Your task to perform on an android device: toggle data saver in the chrome app Image 0: 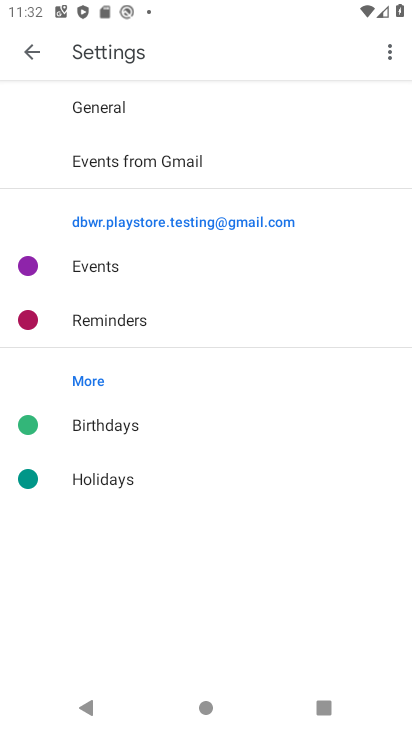
Step 0: press home button
Your task to perform on an android device: toggle data saver in the chrome app Image 1: 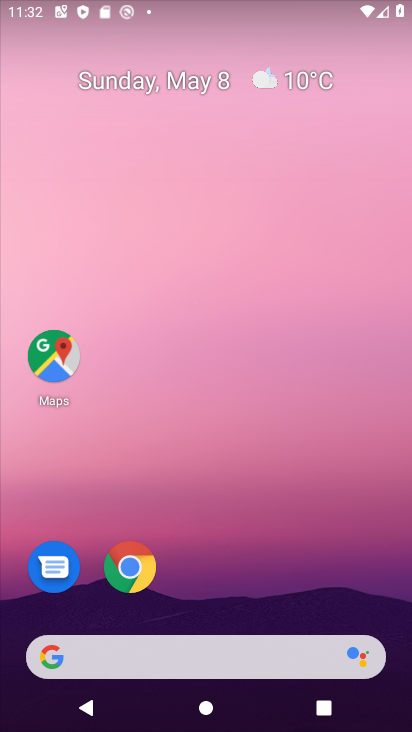
Step 1: click (124, 577)
Your task to perform on an android device: toggle data saver in the chrome app Image 2: 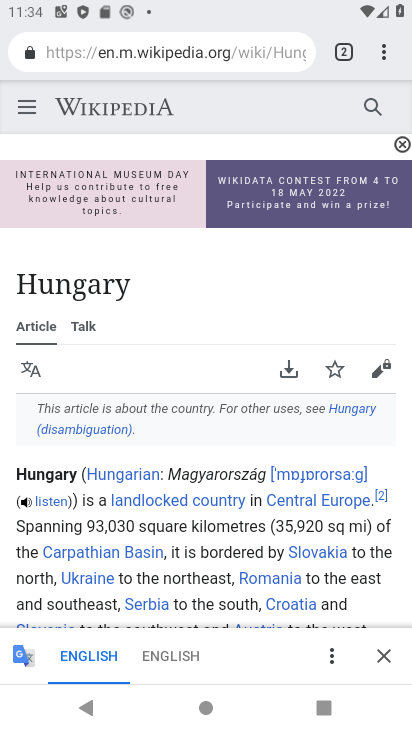
Step 2: click (396, 51)
Your task to perform on an android device: toggle data saver in the chrome app Image 3: 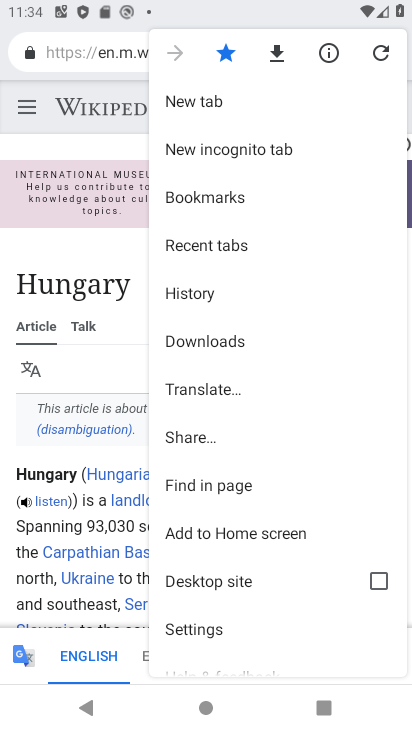
Step 3: drag from (362, 500) to (363, 107)
Your task to perform on an android device: toggle data saver in the chrome app Image 4: 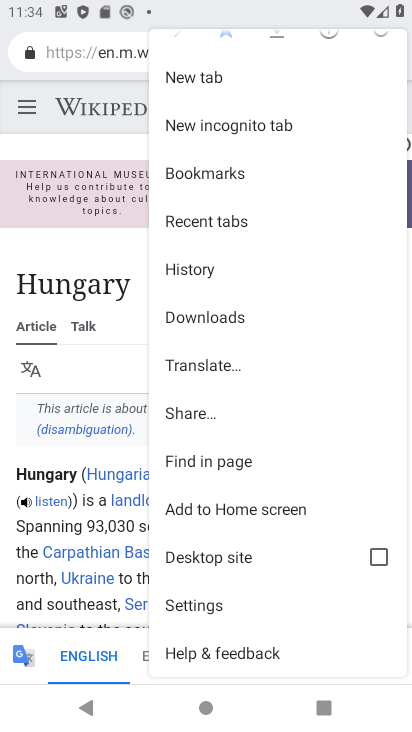
Step 4: click (255, 600)
Your task to perform on an android device: toggle data saver in the chrome app Image 5: 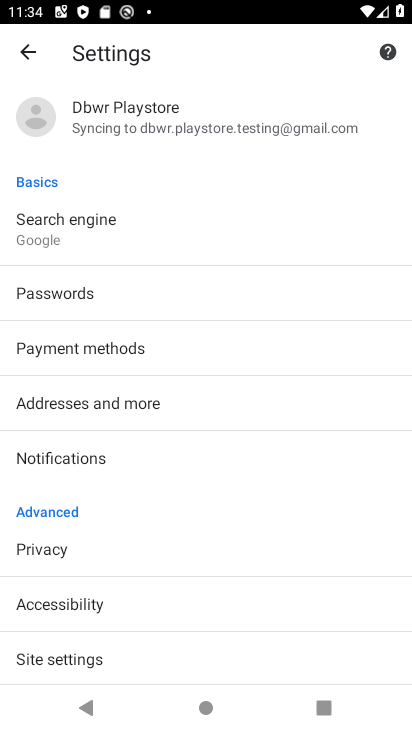
Step 5: drag from (175, 609) to (272, 336)
Your task to perform on an android device: toggle data saver in the chrome app Image 6: 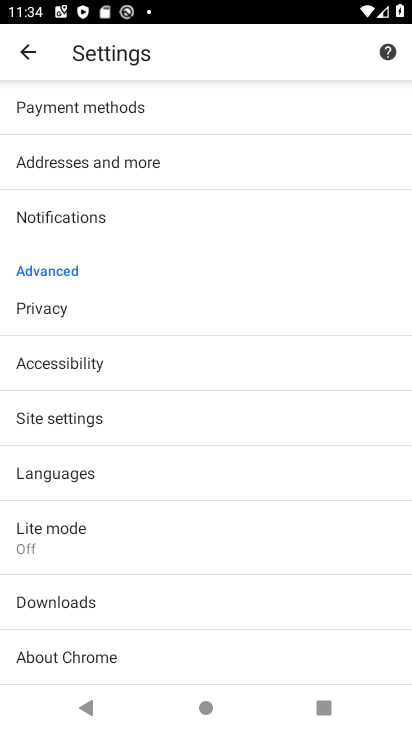
Step 6: click (77, 531)
Your task to perform on an android device: toggle data saver in the chrome app Image 7: 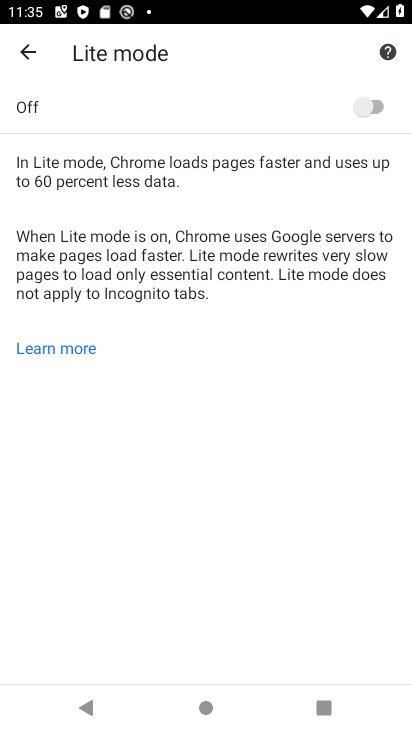
Step 7: click (377, 106)
Your task to perform on an android device: toggle data saver in the chrome app Image 8: 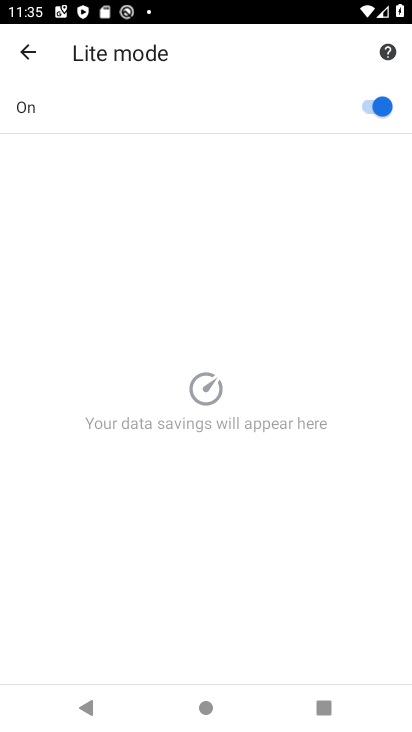
Step 8: task complete